Your task to perform on an android device: visit the assistant section in the google photos Image 0: 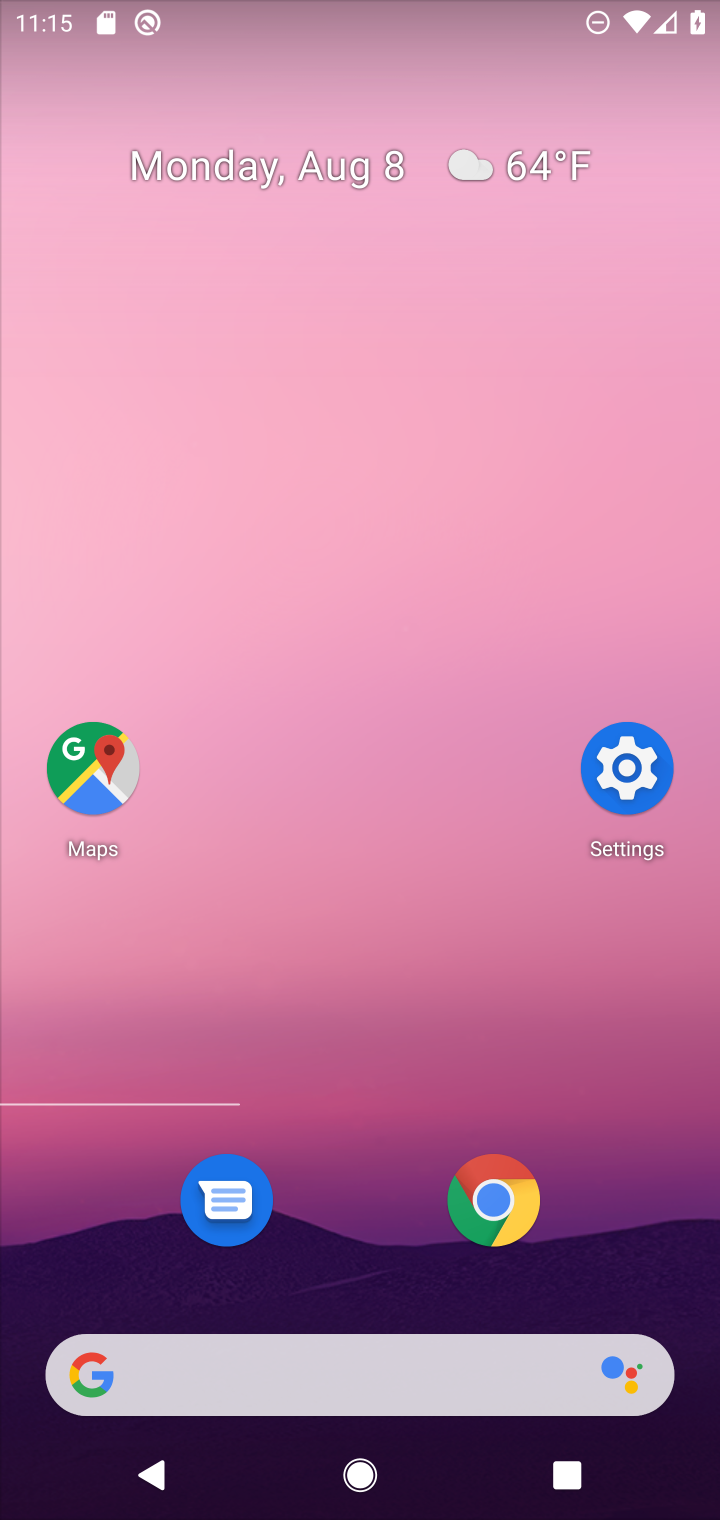
Step 0: drag from (392, 1389) to (588, 203)
Your task to perform on an android device: visit the assistant section in the google photos Image 1: 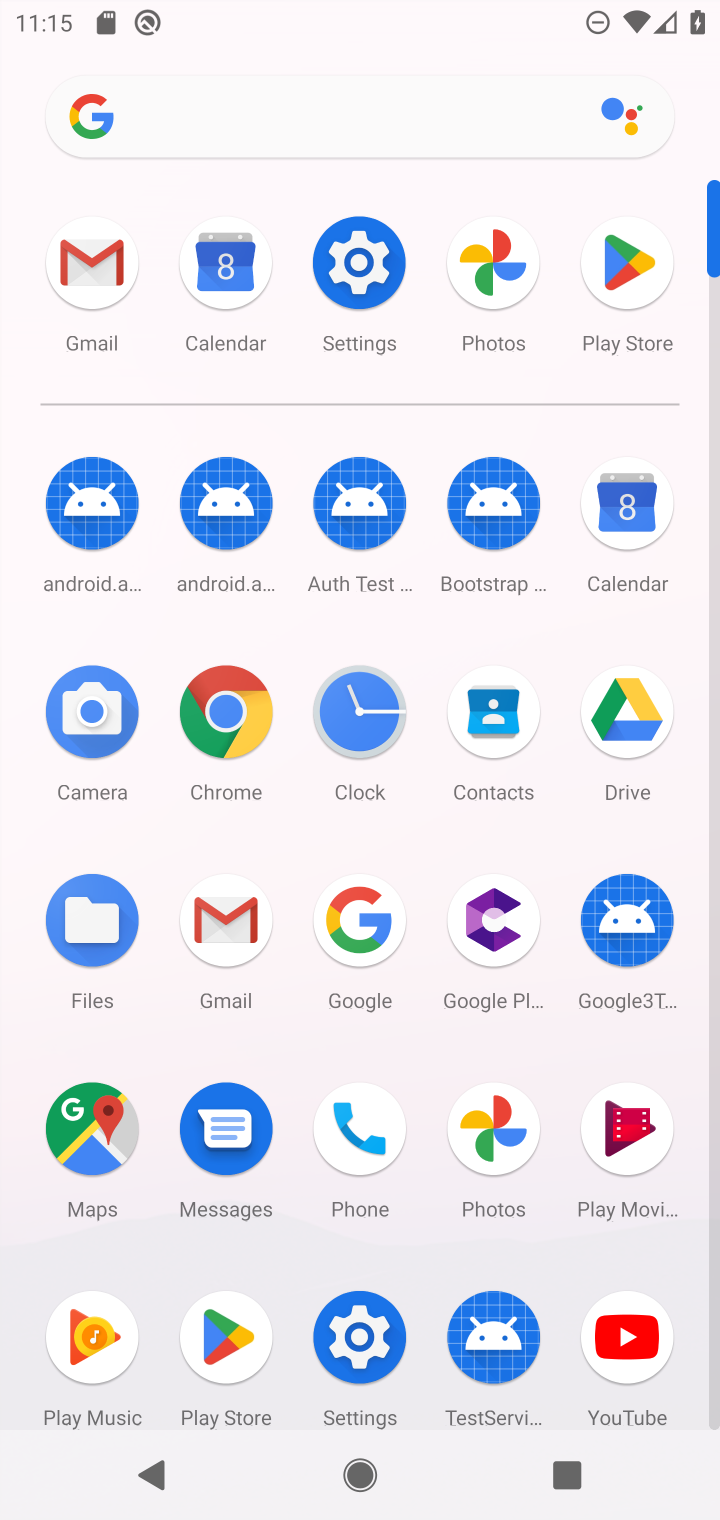
Step 1: click (485, 261)
Your task to perform on an android device: visit the assistant section in the google photos Image 2: 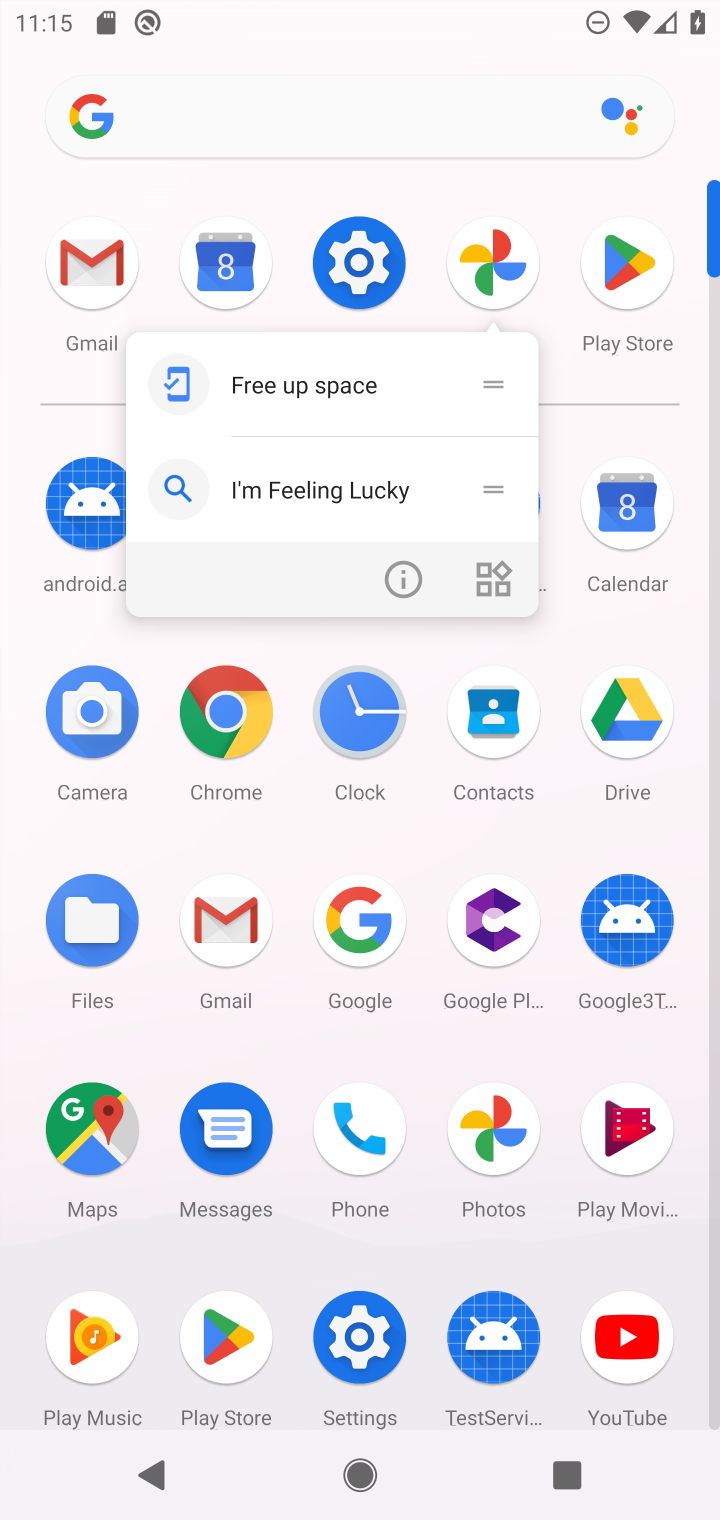
Step 2: click (485, 265)
Your task to perform on an android device: visit the assistant section in the google photos Image 3: 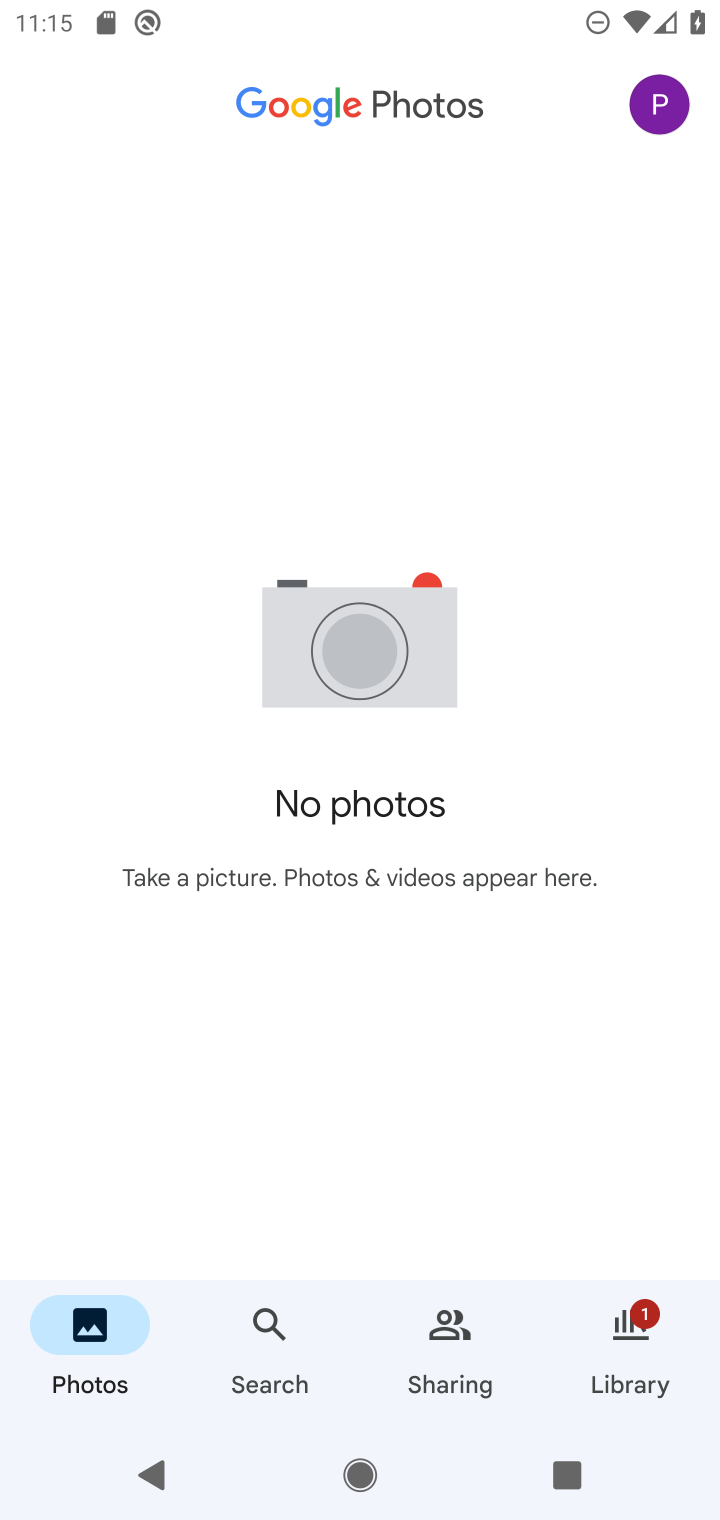
Step 3: click (618, 1354)
Your task to perform on an android device: visit the assistant section in the google photos Image 4: 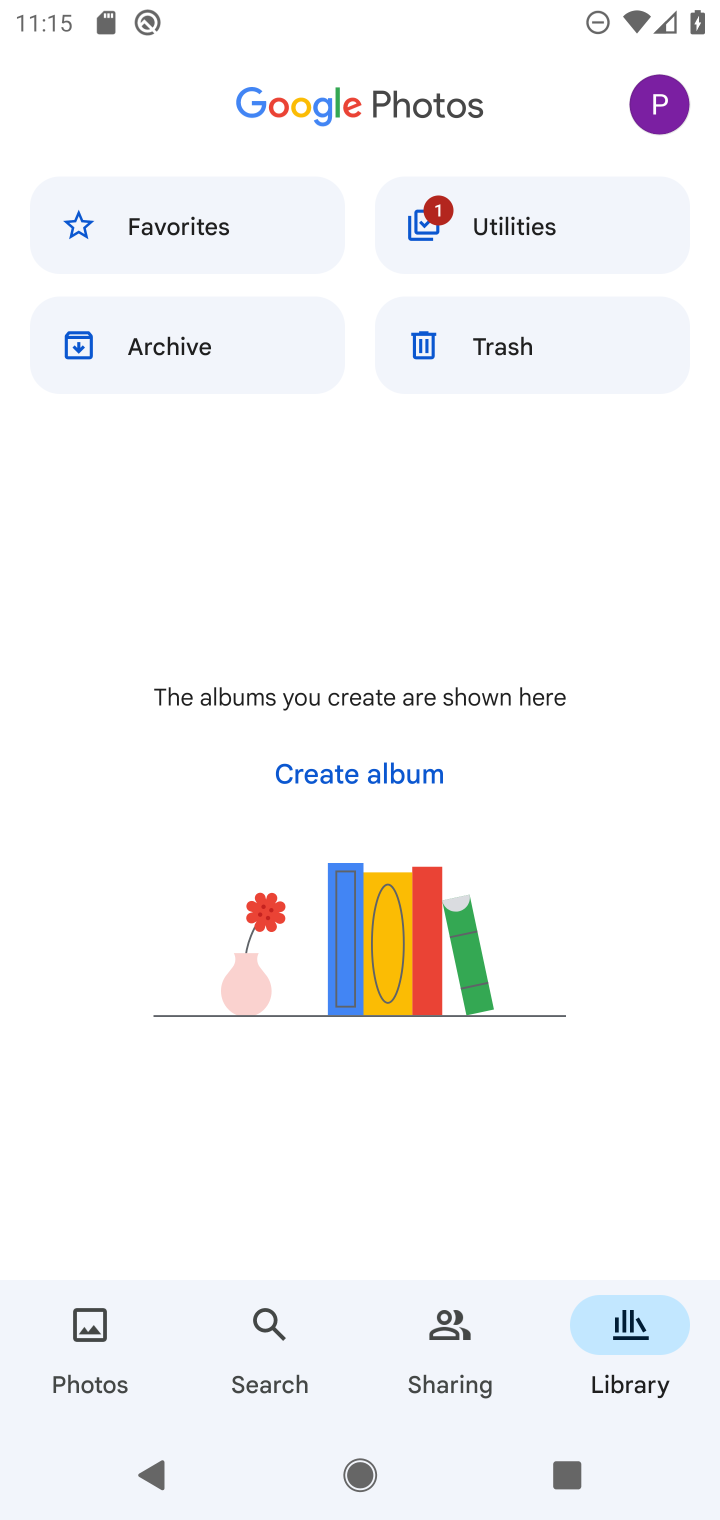
Step 4: task complete